Your task to perform on an android device: turn off smart reply in the gmail app Image 0: 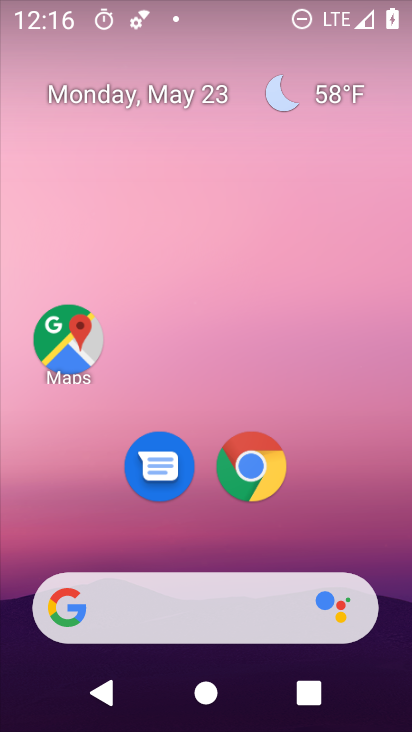
Step 0: drag from (207, 534) to (233, 104)
Your task to perform on an android device: turn off smart reply in the gmail app Image 1: 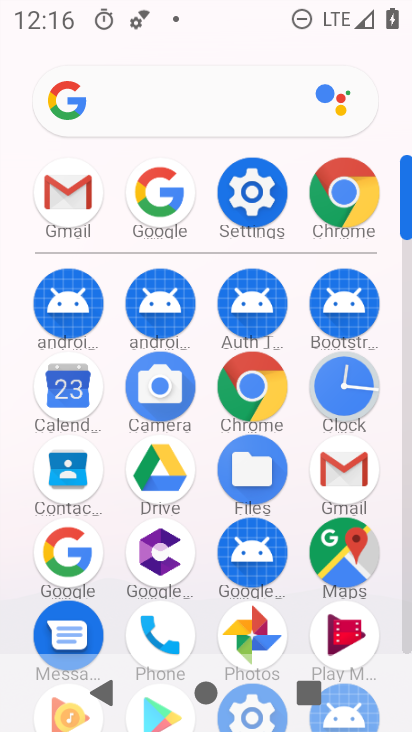
Step 1: click (338, 472)
Your task to perform on an android device: turn off smart reply in the gmail app Image 2: 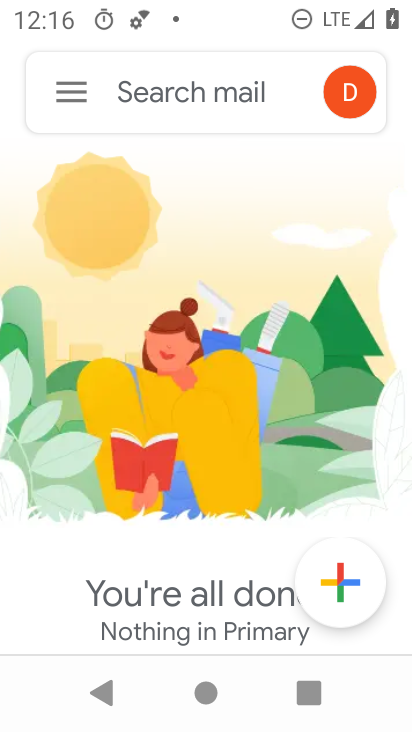
Step 2: click (60, 98)
Your task to perform on an android device: turn off smart reply in the gmail app Image 3: 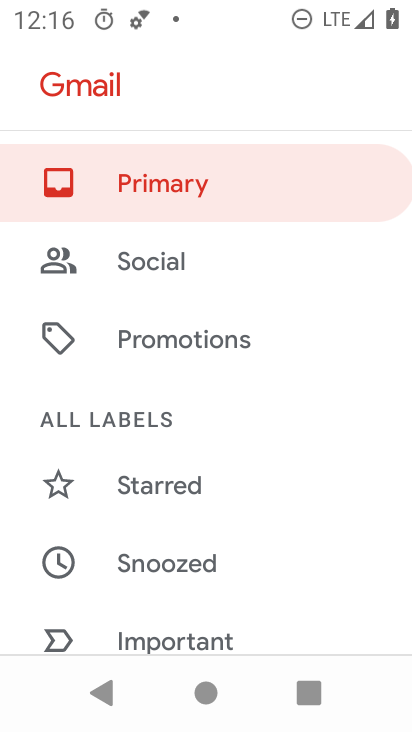
Step 3: drag from (216, 589) to (256, 59)
Your task to perform on an android device: turn off smart reply in the gmail app Image 4: 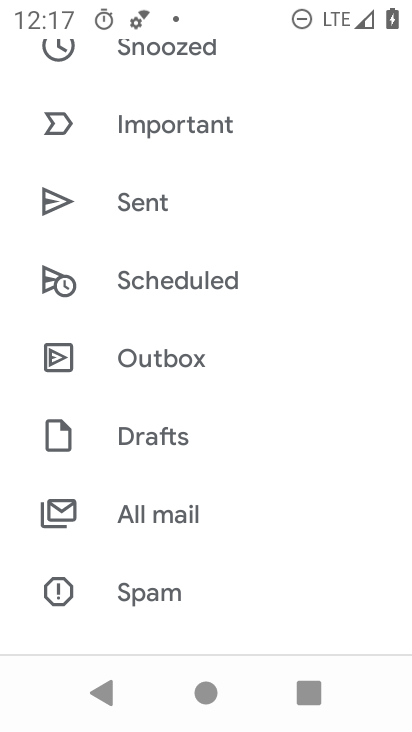
Step 4: drag from (173, 536) to (199, 129)
Your task to perform on an android device: turn off smart reply in the gmail app Image 5: 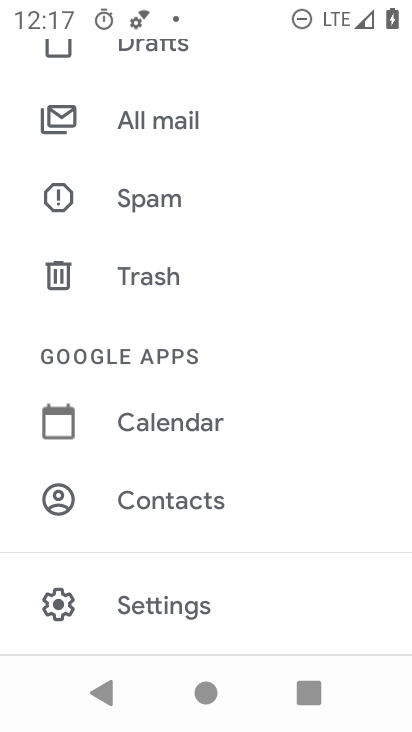
Step 5: drag from (223, 491) to (194, 197)
Your task to perform on an android device: turn off smart reply in the gmail app Image 6: 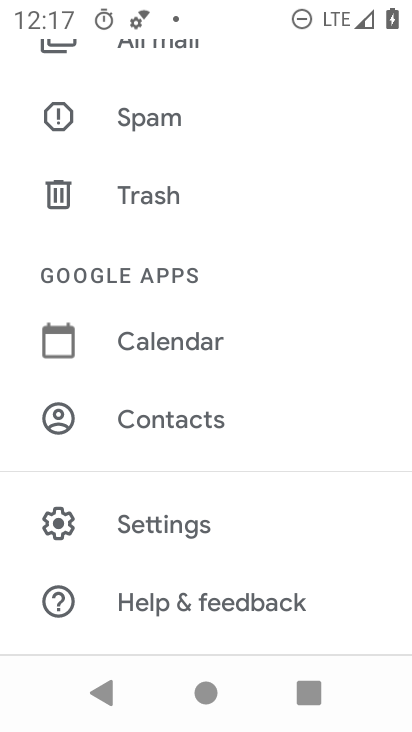
Step 6: click (174, 522)
Your task to perform on an android device: turn off smart reply in the gmail app Image 7: 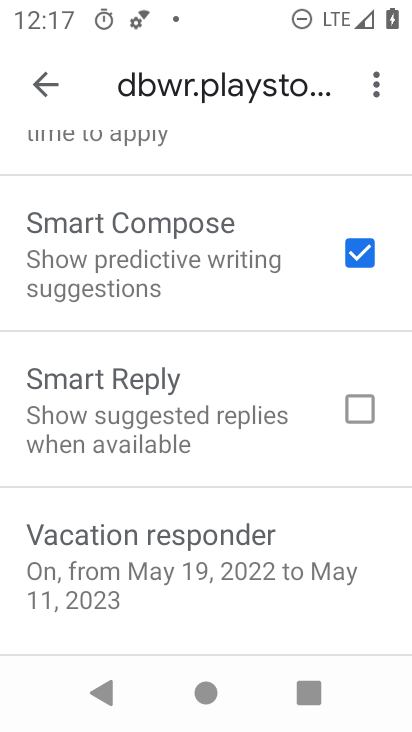
Step 7: task complete